Your task to perform on an android device: turn off notifications in google photos Image 0: 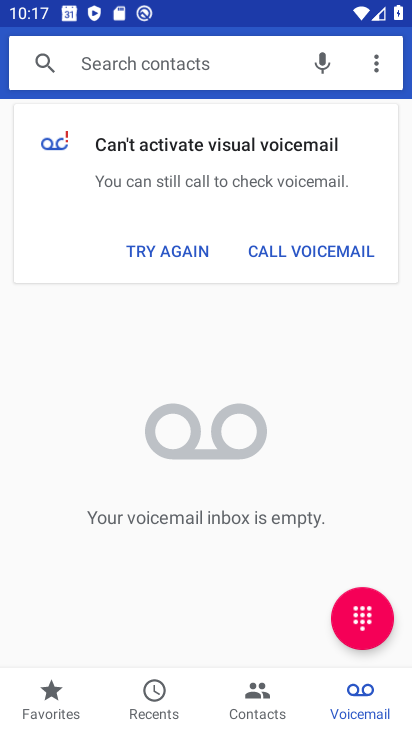
Step 0: press home button
Your task to perform on an android device: turn off notifications in google photos Image 1: 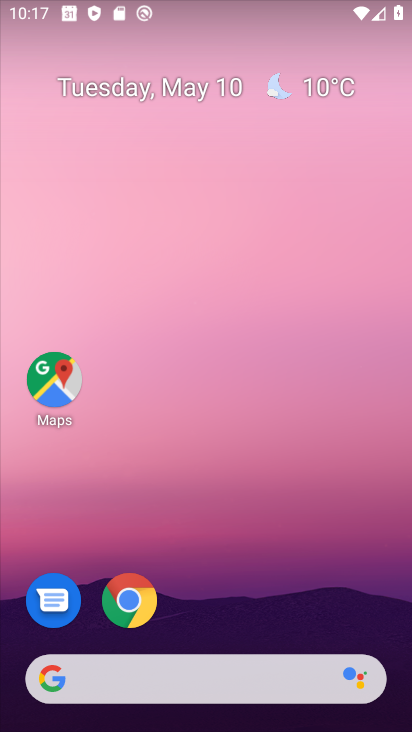
Step 1: drag from (348, 585) to (36, 392)
Your task to perform on an android device: turn off notifications in google photos Image 2: 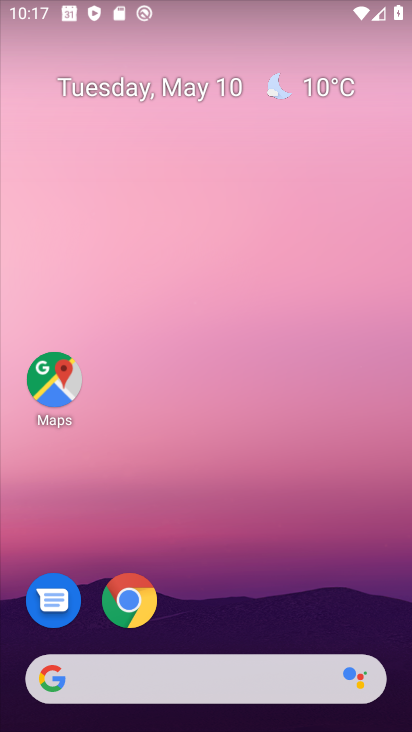
Step 2: drag from (254, 564) to (301, 166)
Your task to perform on an android device: turn off notifications in google photos Image 3: 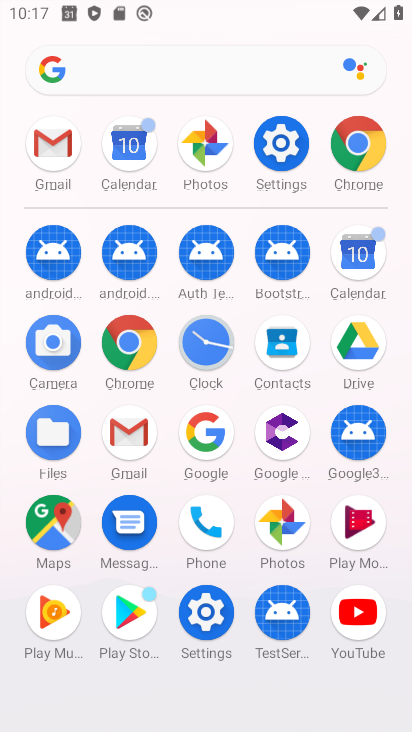
Step 3: click (203, 157)
Your task to perform on an android device: turn off notifications in google photos Image 4: 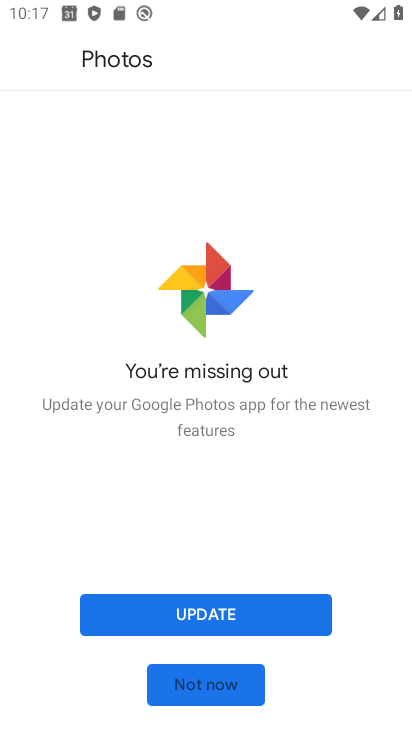
Step 4: click (209, 609)
Your task to perform on an android device: turn off notifications in google photos Image 5: 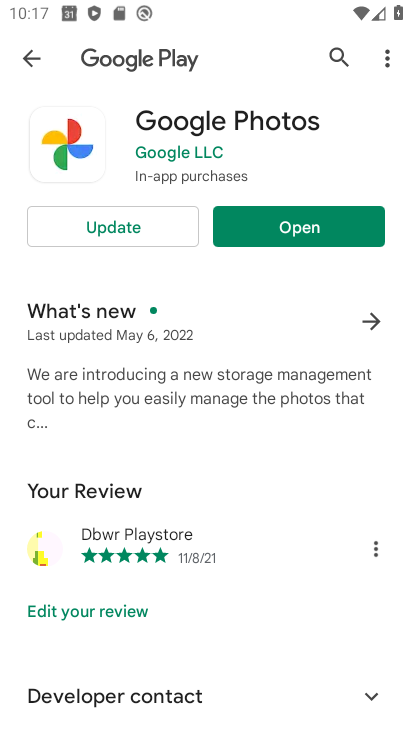
Step 5: click (98, 230)
Your task to perform on an android device: turn off notifications in google photos Image 6: 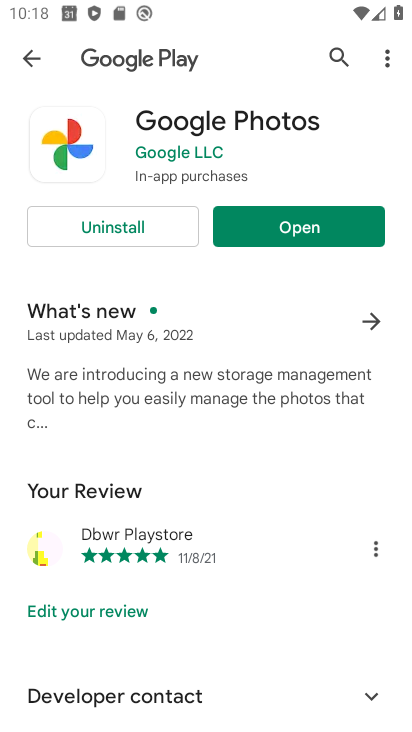
Step 6: click (318, 198)
Your task to perform on an android device: turn off notifications in google photos Image 7: 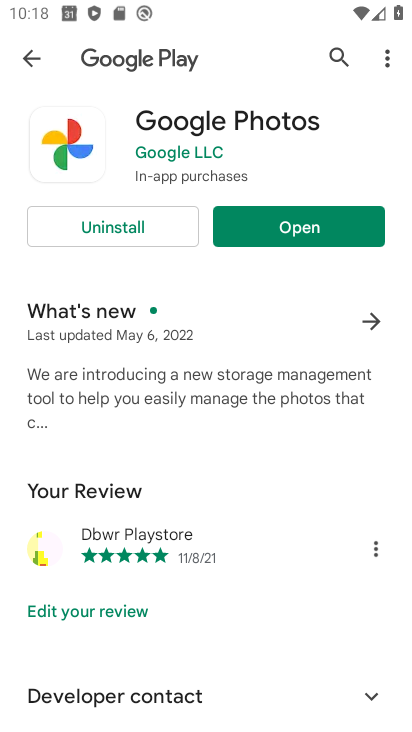
Step 7: click (315, 219)
Your task to perform on an android device: turn off notifications in google photos Image 8: 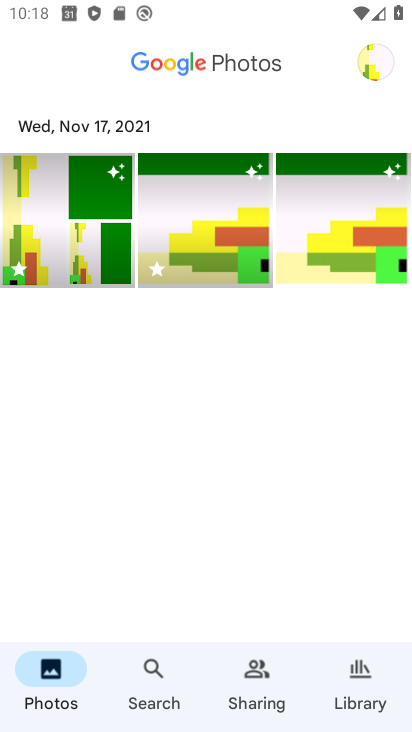
Step 8: click (373, 66)
Your task to perform on an android device: turn off notifications in google photos Image 9: 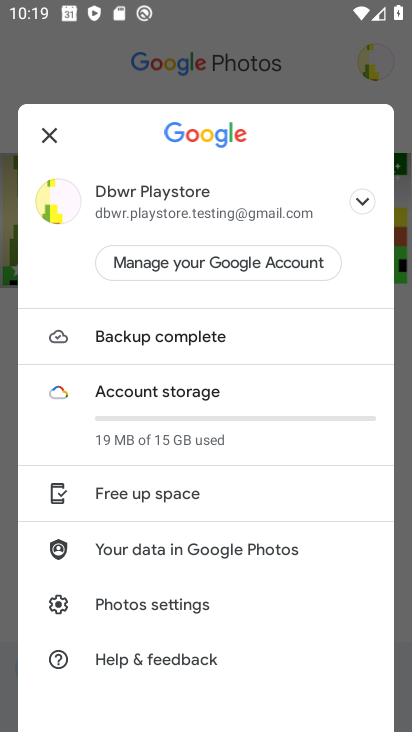
Step 9: drag from (223, 631) to (326, 231)
Your task to perform on an android device: turn off notifications in google photos Image 10: 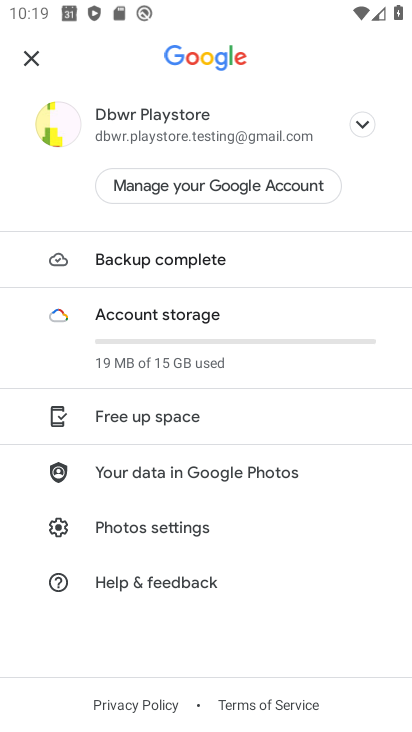
Step 10: drag from (197, 573) to (227, 284)
Your task to perform on an android device: turn off notifications in google photos Image 11: 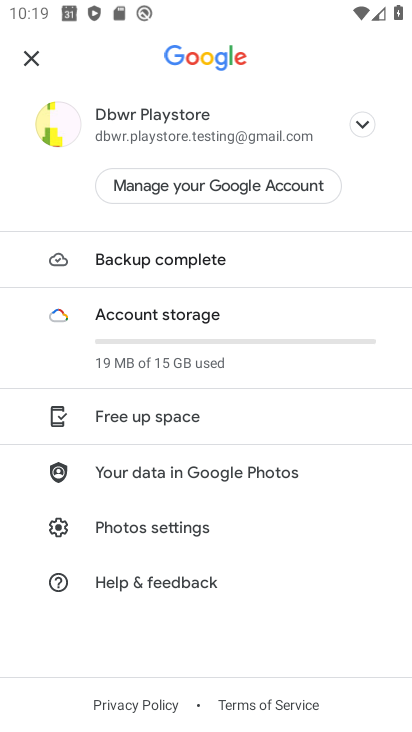
Step 11: click (155, 522)
Your task to perform on an android device: turn off notifications in google photos Image 12: 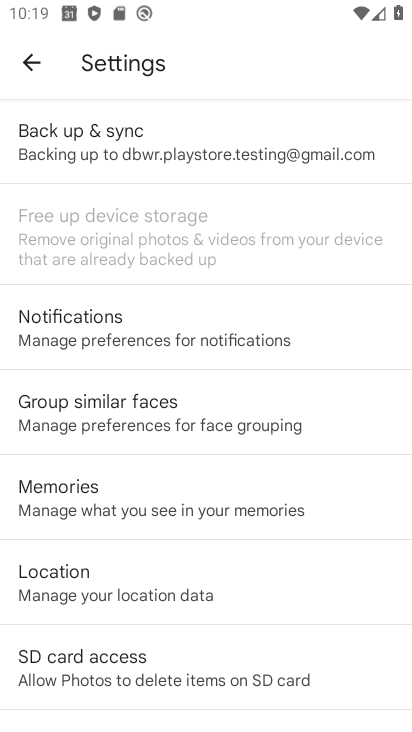
Step 12: click (131, 320)
Your task to perform on an android device: turn off notifications in google photos Image 13: 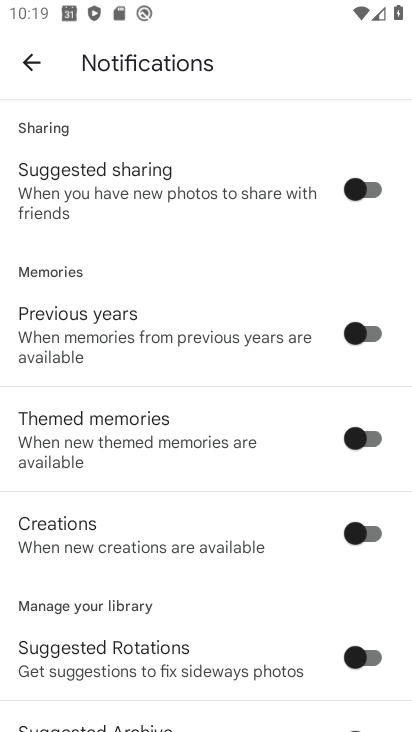
Step 13: drag from (147, 562) to (257, 173)
Your task to perform on an android device: turn off notifications in google photos Image 14: 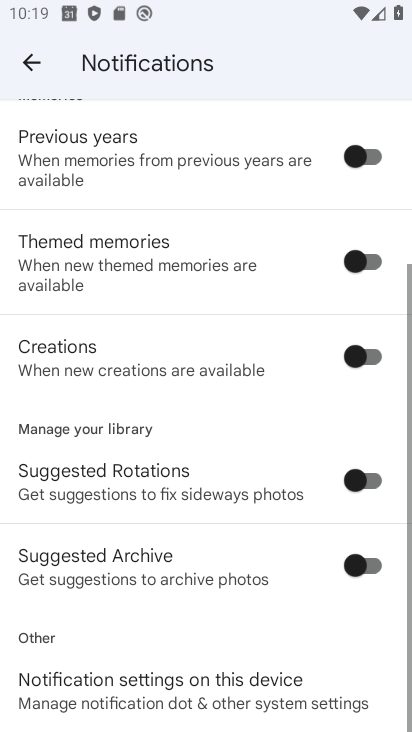
Step 14: drag from (141, 545) to (209, 140)
Your task to perform on an android device: turn off notifications in google photos Image 15: 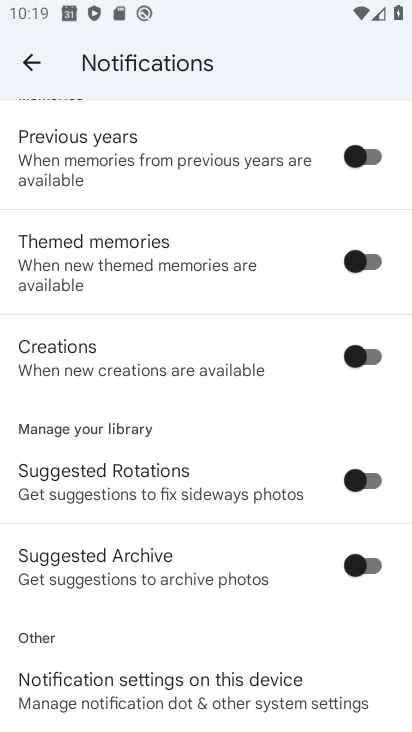
Step 15: drag from (131, 619) to (228, 245)
Your task to perform on an android device: turn off notifications in google photos Image 16: 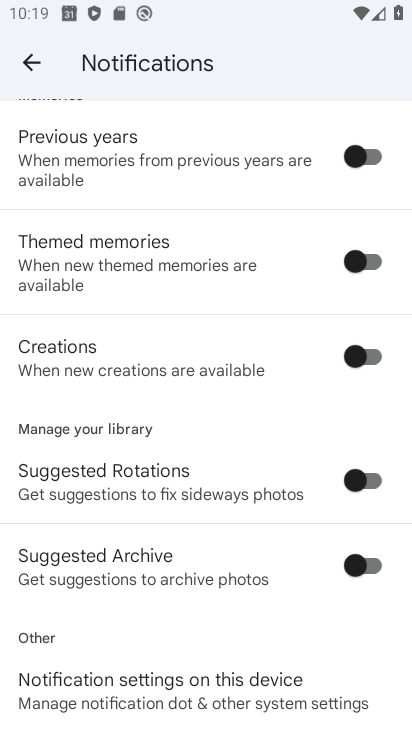
Step 16: click (123, 686)
Your task to perform on an android device: turn off notifications in google photos Image 17: 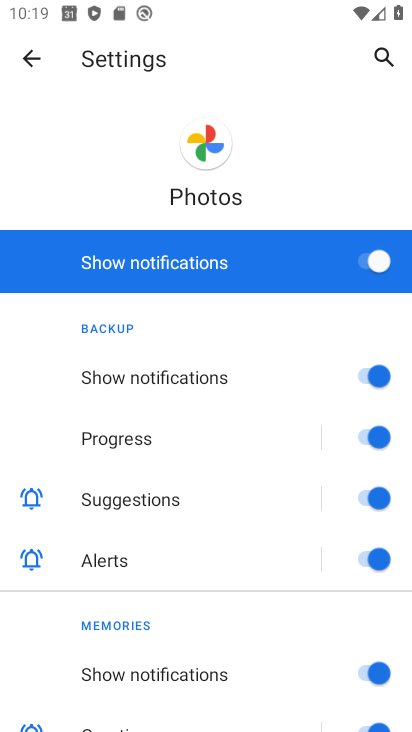
Step 17: click (363, 267)
Your task to perform on an android device: turn off notifications in google photos Image 18: 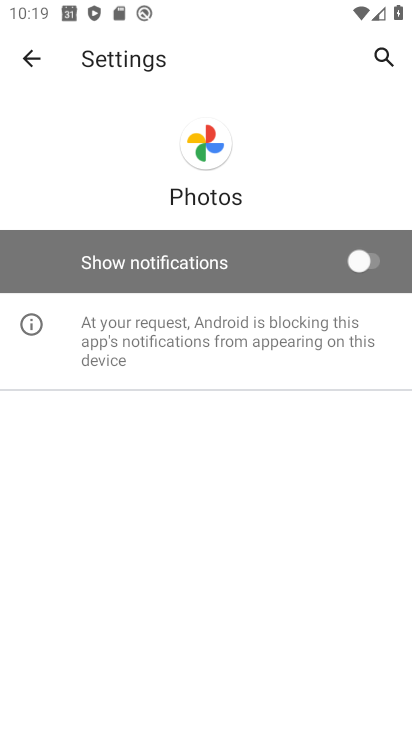
Step 18: task complete